Your task to perform on an android device: open wifi settings Image 0: 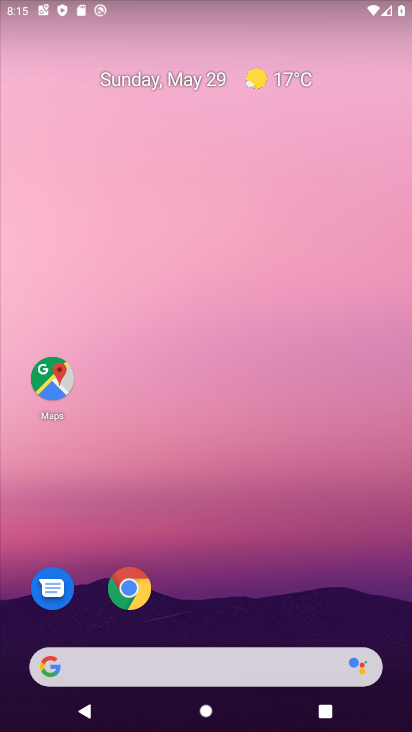
Step 0: drag from (132, 637) to (277, 85)
Your task to perform on an android device: open wifi settings Image 1: 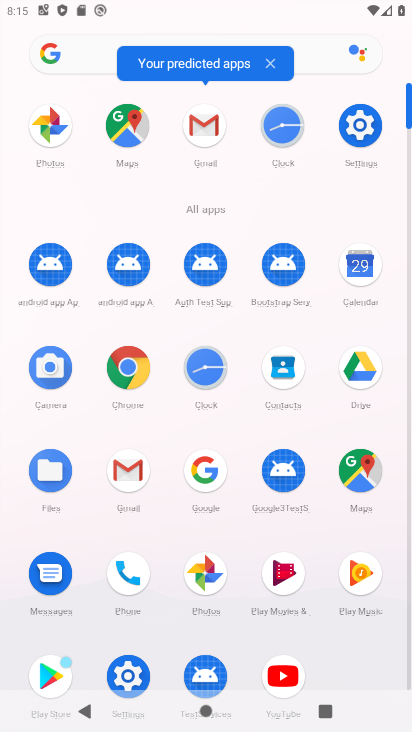
Step 1: drag from (156, 678) to (234, 379)
Your task to perform on an android device: open wifi settings Image 2: 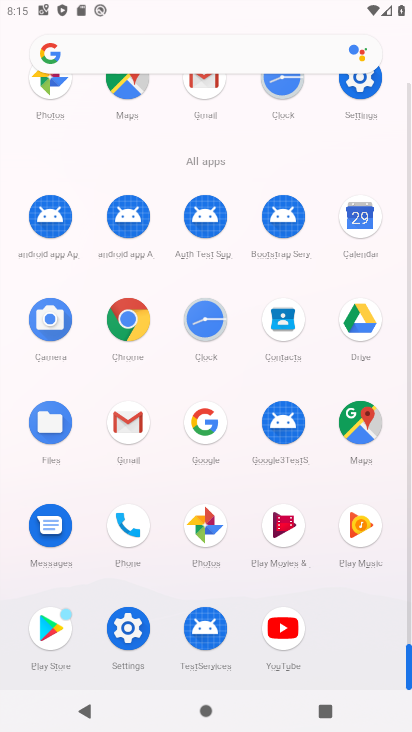
Step 2: click (122, 628)
Your task to perform on an android device: open wifi settings Image 3: 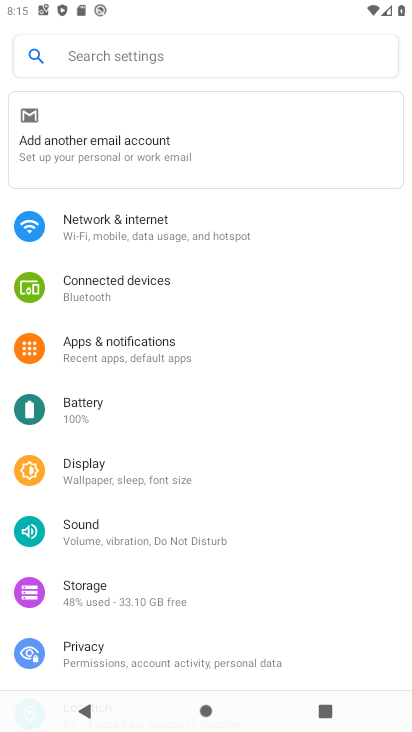
Step 3: click (193, 230)
Your task to perform on an android device: open wifi settings Image 4: 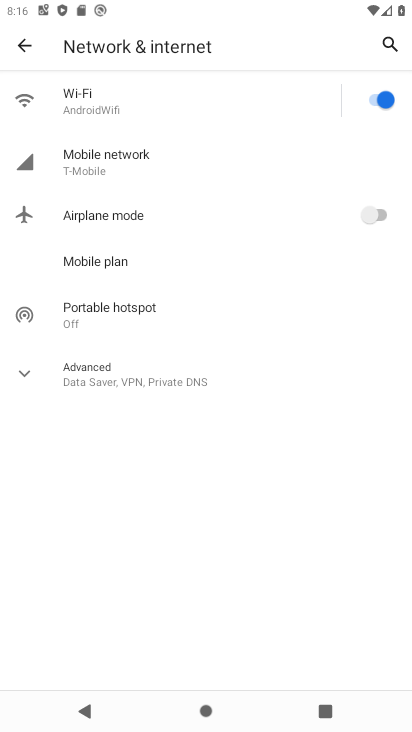
Step 4: click (156, 111)
Your task to perform on an android device: open wifi settings Image 5: 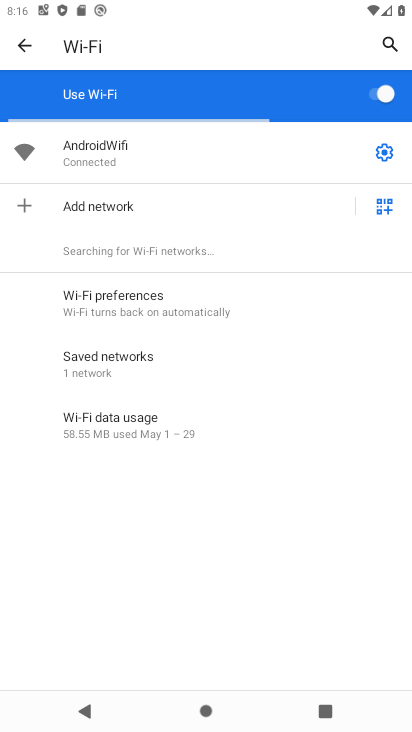
Step 5: task complete